Your task to perform on an android device: Open Reddit.com Image 0: 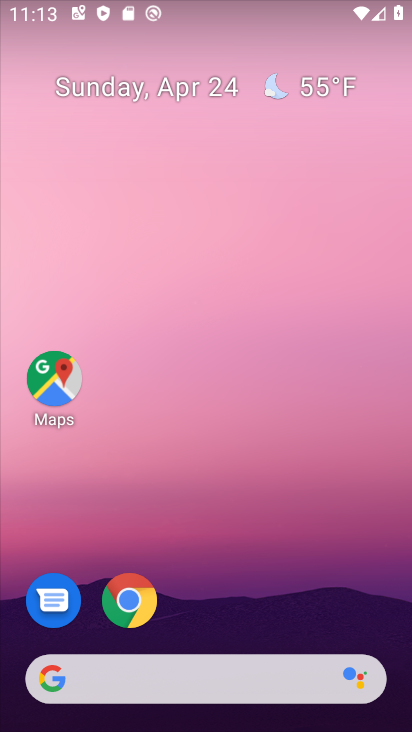
Step 0: click (189, 660)
Your task to perform on an android device: Open Reddit.com Image 1: 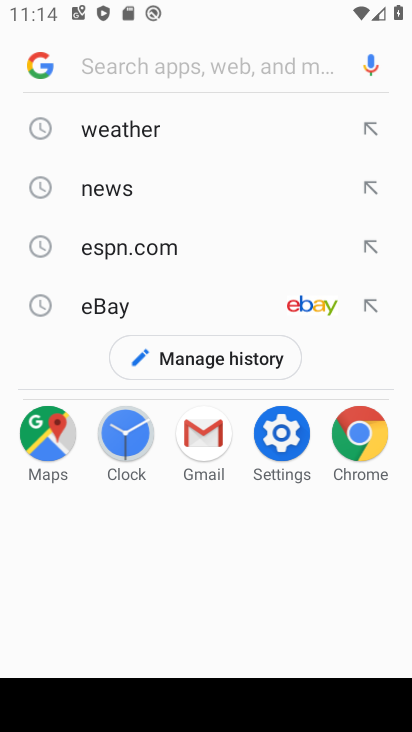
Step 1: type "reddit.com"
Your task to perform on an android device: Open Reddit.com Image 2: 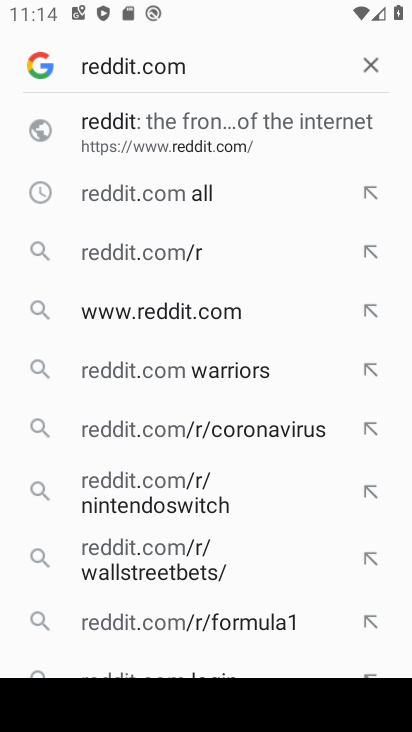
Step 2: click (204, 304)
Your task to perform on an android device: Open Reddit.com Image 3: 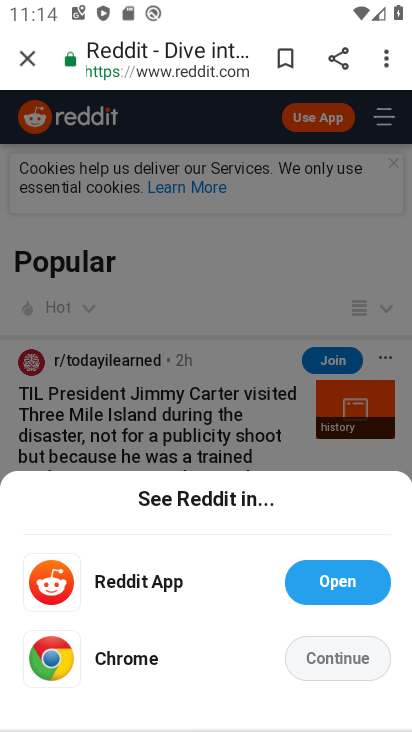
Step 3: task complete